Your task to perform on an android device: Open accessibility settings Image 0: 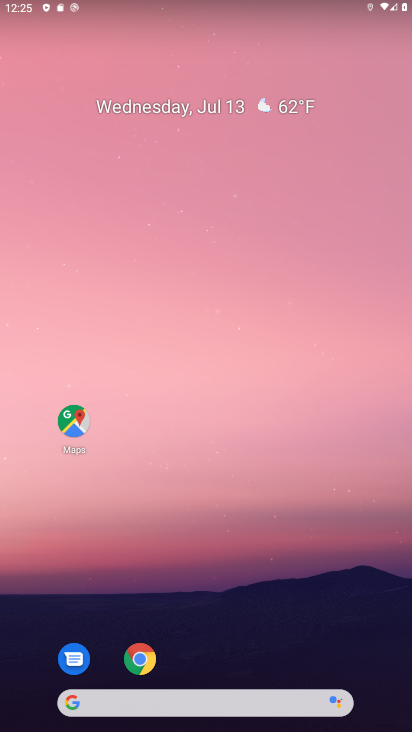
Step 0: click (107, 122)
Your task to perform on an android device: Open accessibility settings Image 1: 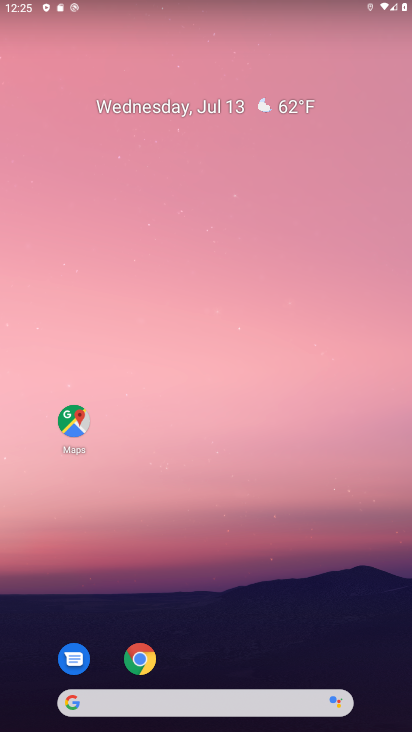
Step 1: drag from (139, 197) to (150, 121)
Your task to perform on an android device: Open accessibility settings Image 2: 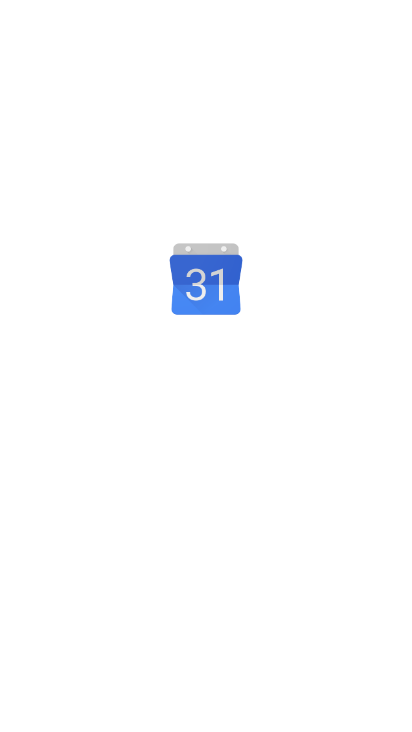
Step 2: drag from (206, 449) to (186, 176)
Your task to perform on an android device: Open accessibility settings Image 3: 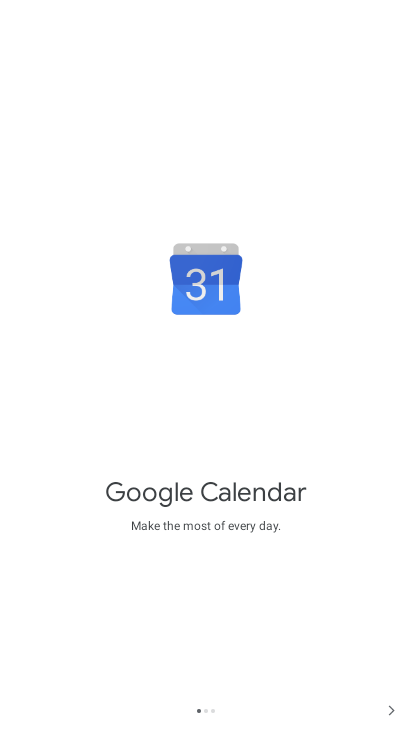
Step 3: press back button
Your task to perform on an android device: Open accessibility settings Image 4: 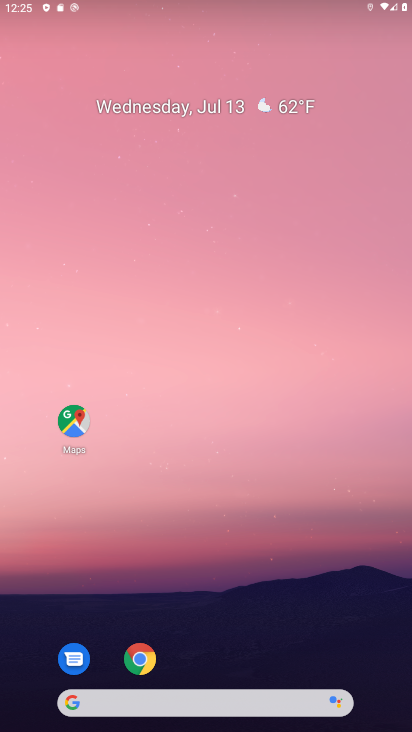
Step 4: drag from (192, 600) to (146, 10)
Your task to perform on an android device: Open accessibility settings Image 5: 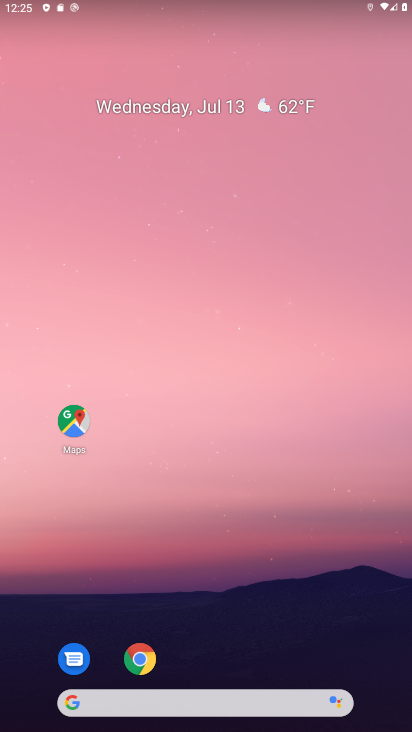
Step 5: drag from (249, 478) to (194, 54)
Your task to perform on an android device: Open accessibility settings Image 6: 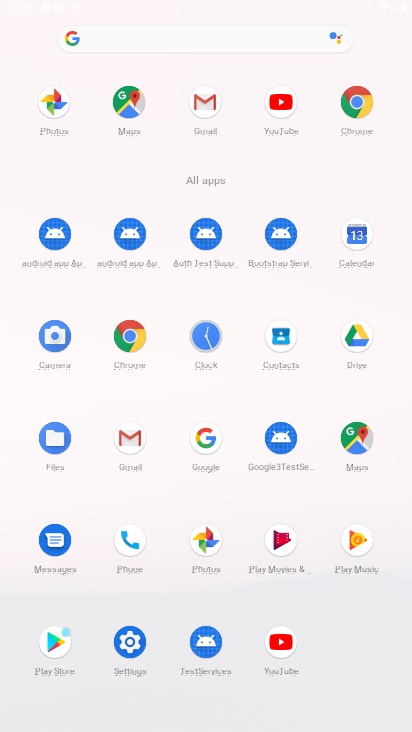
Step 6: drag from (253, 435) to (190, 51)
Your task to perform on an android device: Open accessibility settings Image 7: 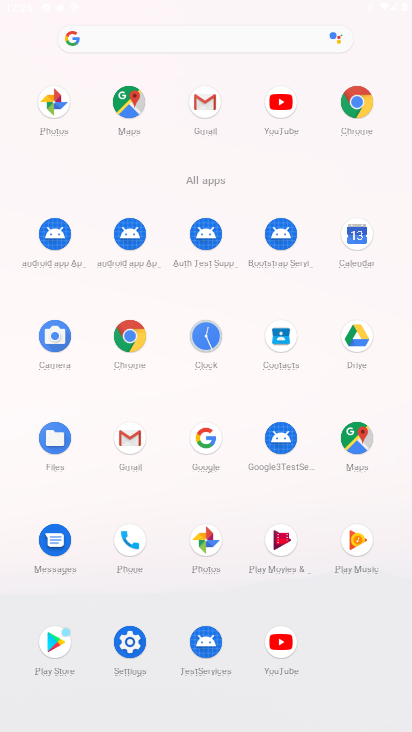
Step 7: click (143, 647)
Your task to perform on an android device: Open accessibility settings Image 8: 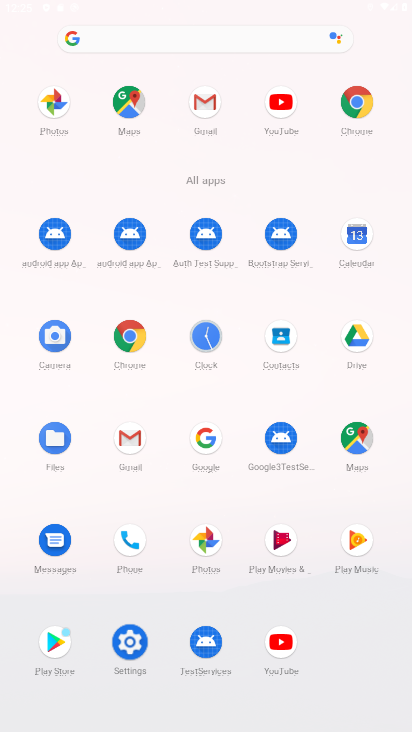
Step 8: click (137, 650)
Your task to perform on an android device: Open accessibility settings Image 9: 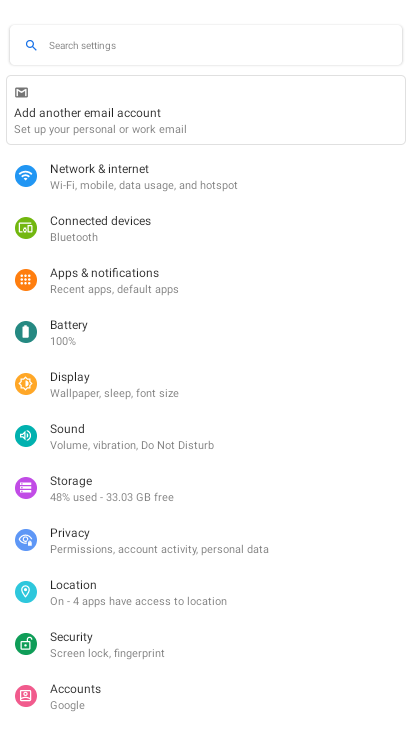
Step 9: drag from (146, 576) to (100, 245)
Your task to perform on an android device: Open accessibility settings Image 10: 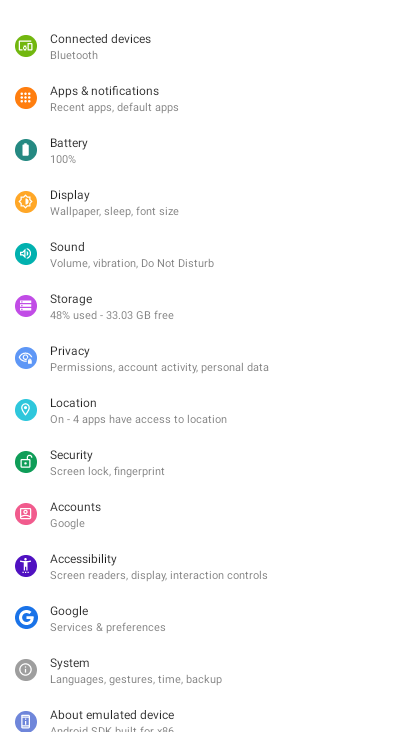
Step 10: drag from (153, 508) to (153, 358)
Your task to perform on an android device: Open accessibility settings Image 11: 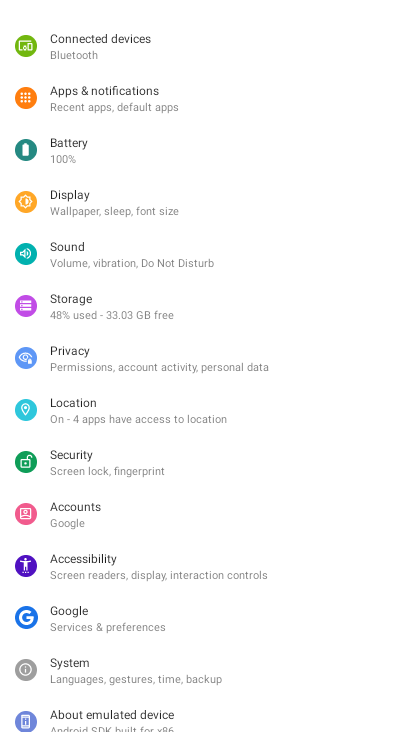
Step 11: click (76, 566)
Your task to perform on an android device: Open accessibility settings Image 12: 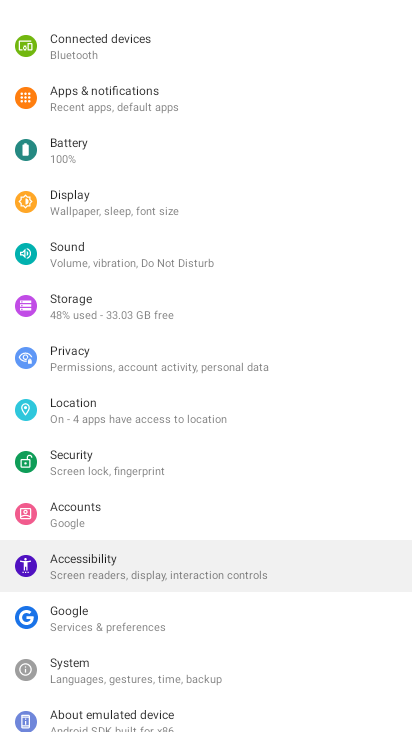
Step 12: click (77, 564)
Your task to perform on an android device: Open accessibility settings Image 13: 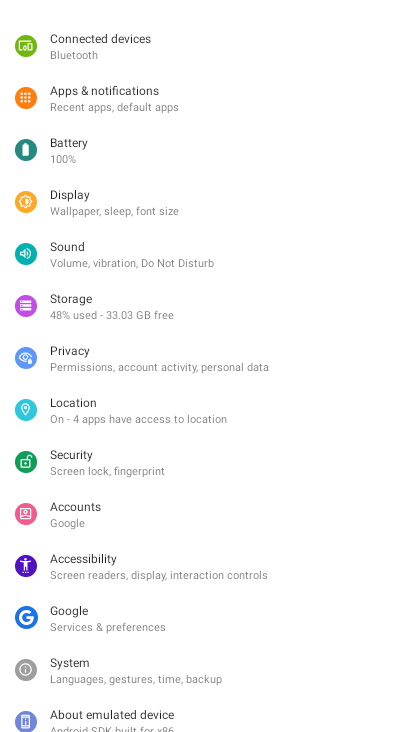
Step 13: click (80, 562)
Your task to perform on an android device: Open accessibility settings Image 14: 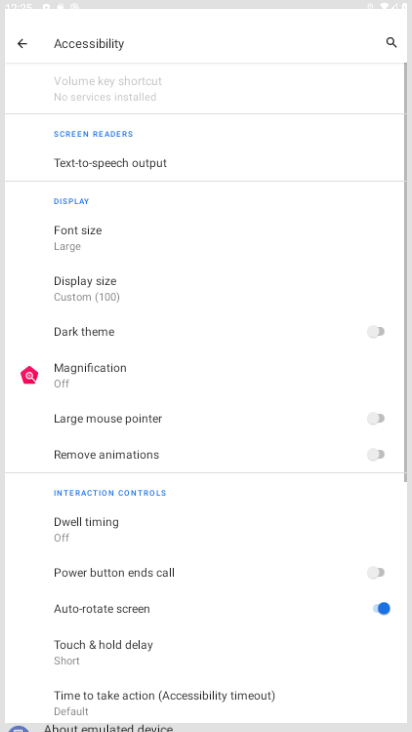
Step 14: click (83, 561)
Your task to perform on an android device: Open accessibility settings Image 15: 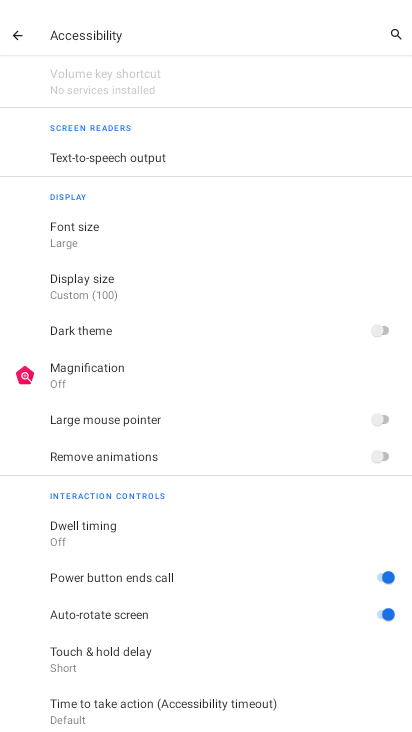
Step 15: task complete